Your task to perform on an android device: When is my next appointment? Image 0: 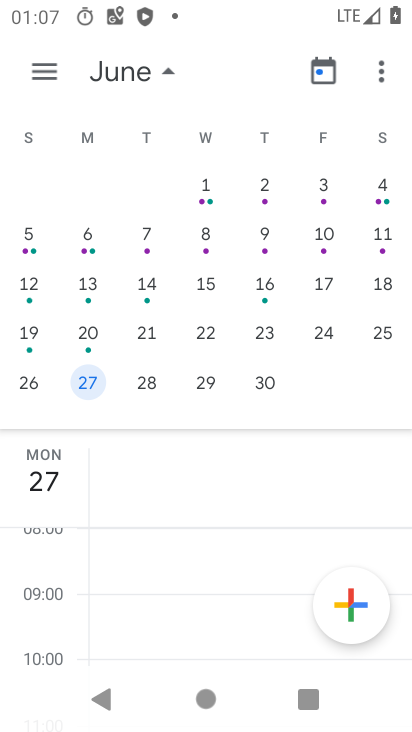
Step 0: drag from (90, 242) to (411, 251)
Your task to perform on an android device: When is my next appointment? Image 1: 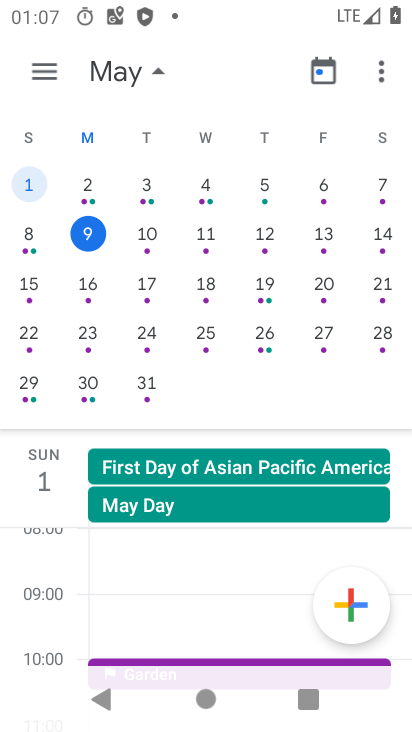
Step 1: click (144, 233)
Your task to perform on an android device: When is my next appointment? Image 2: 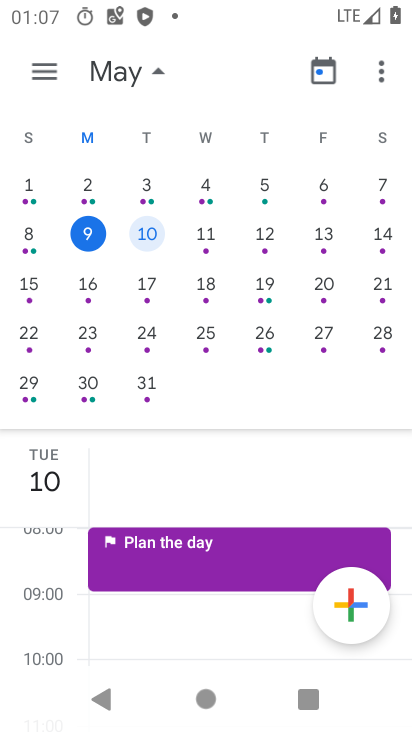
Step 2: task complete